Your task to perform on an android device: turn on location history Image 0: 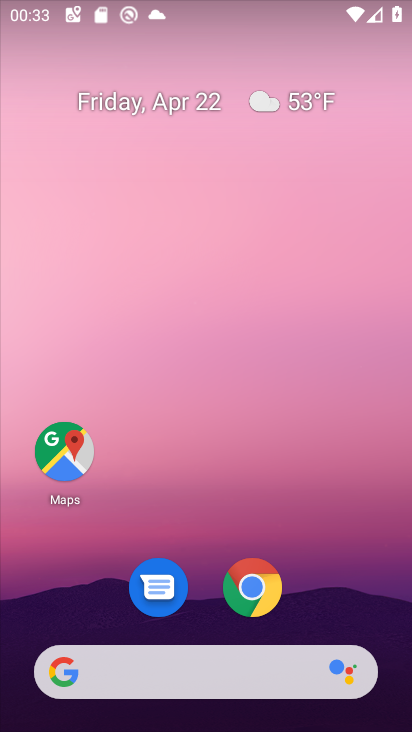
Step 0: drag from (317, 576) to (334, 183)
Your task to perform on an android device: turn on location history Image 1: 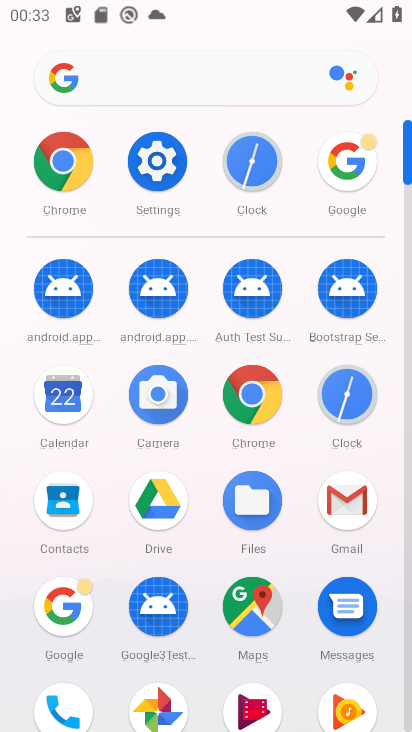
Step 1: click (139, 176)
Your task to perform on an android device: turn on location history Image 2: 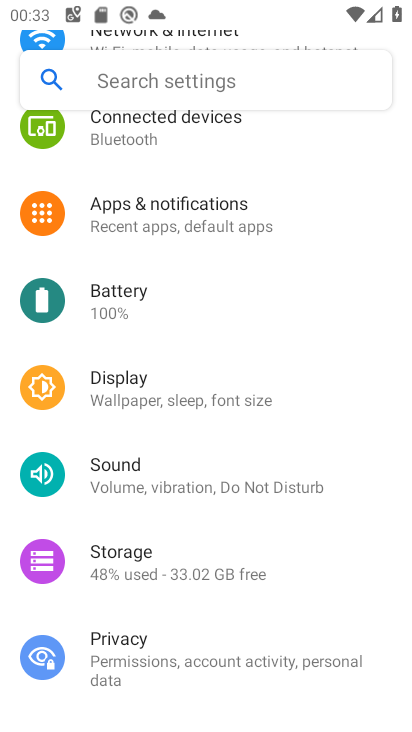
Step 2: drag from (224, 249) to (258, 103)
Your task to perform on an android device: turn on location history Image 3: 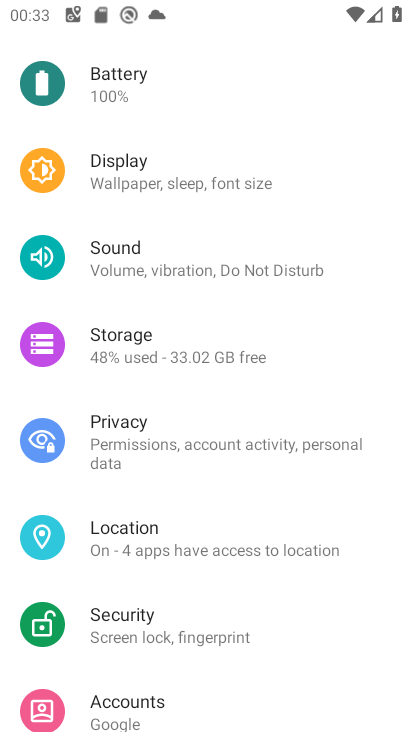
Step 3: click (218, 538)
Your task to perform on an android device: turn on location history Image 4: 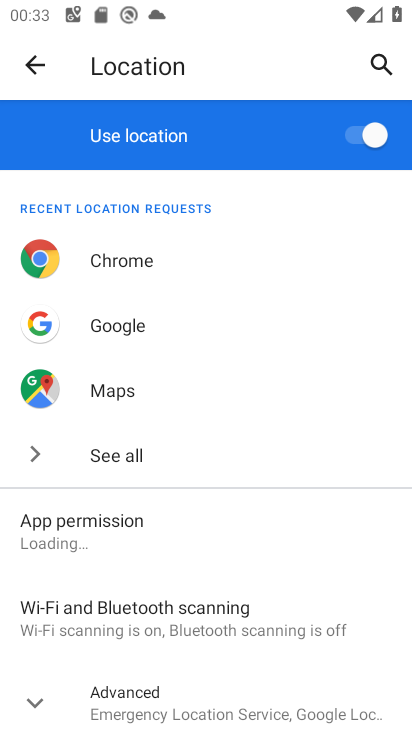
Step 4: drag from (147, 590) to (170, 263)
Your task to perform on an android device: turn on location history Image 5: 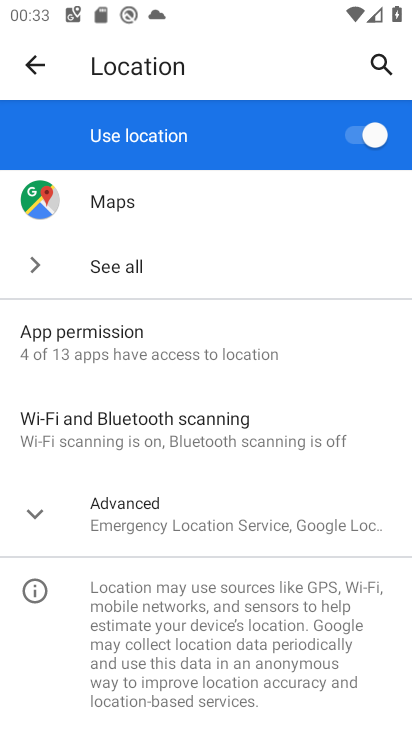
Step 5: click (44, 523)
Your task to perform on an android device: turn on location history Image 6: 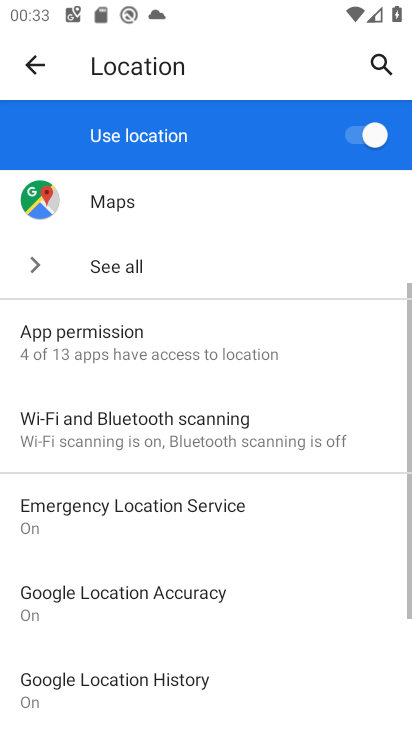
Step 6: drag from (267, 648) to (284, 416)
Your task to perform on an android device: turn on location history Image 7: 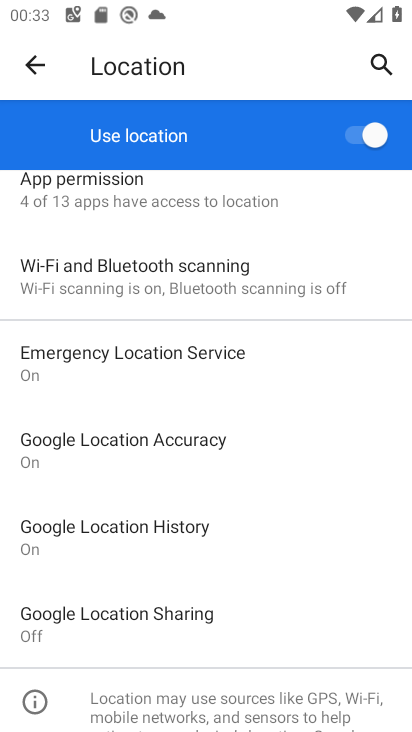
Step 7: click (223, 533)
Your task to perform on an android device: turn on location history Image 8: 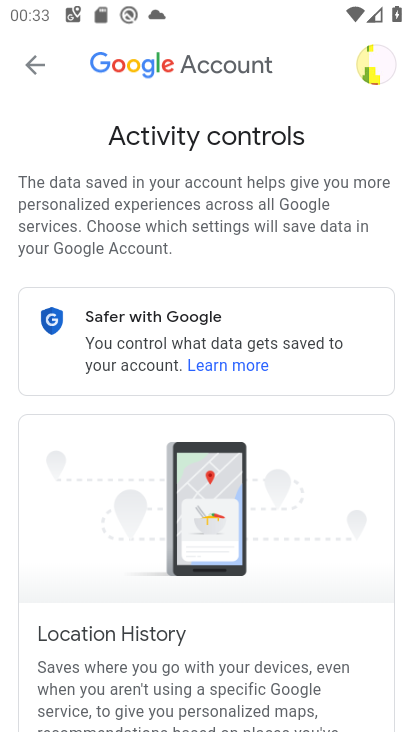
Step 8: task complete